Your task to perform on an android device: Go to display settings Image 0: 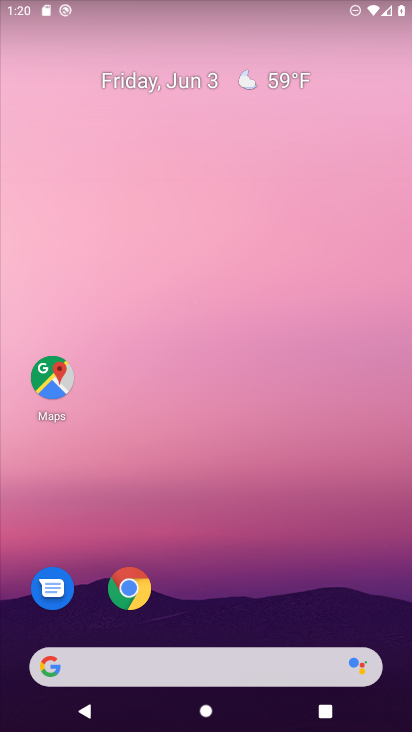
Step 0: drag from (215, 451) to (172, 40)
Your task to perform on an android device: Go to display settings Image 1: 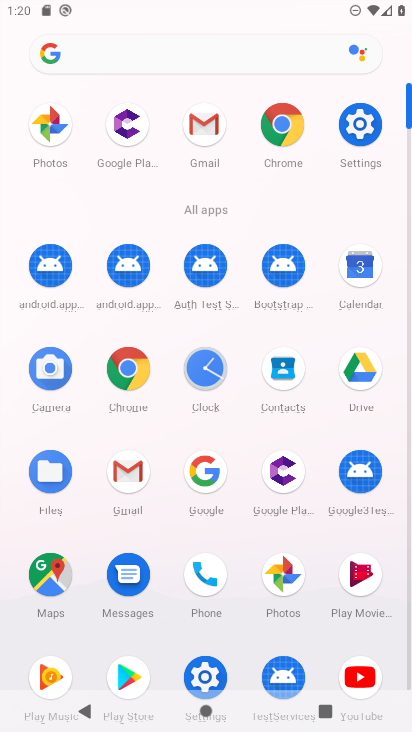
Step 1: click (359, 111)
Your task to perform on an android device: Go to display settings Image 2: 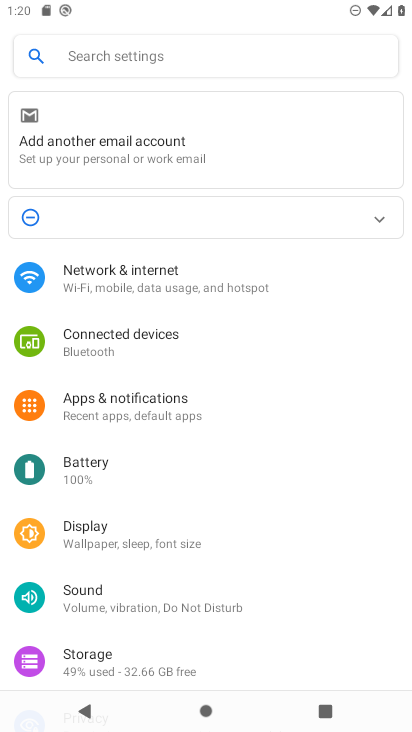
Step 2: click (144, 527)
Your task to perform on an android device: Go to display settings Image 3: 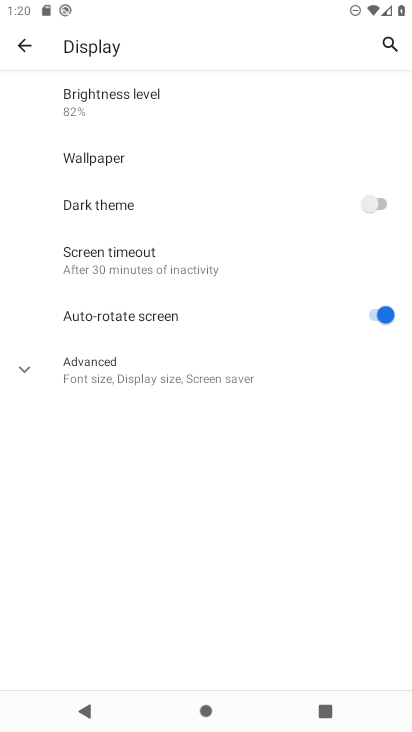
Step 3: click (29, 368)
Your task to perform on an android device: Go to display settings Image 4: 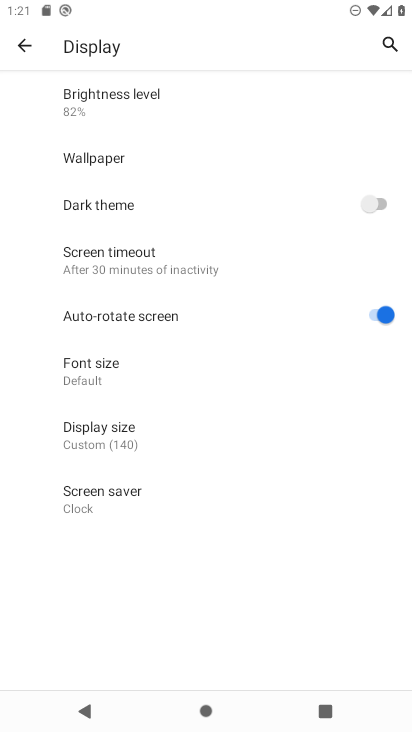
Step 4: task complete